Your task to perform on an android device: Is it going to rain today? Image 0: 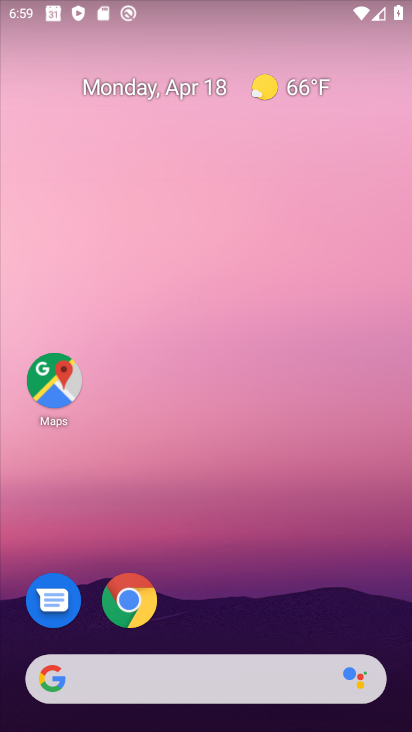
Step 0: click (130, 601)
Your task to perform on an android device: Is it going to rain today? Image 1: 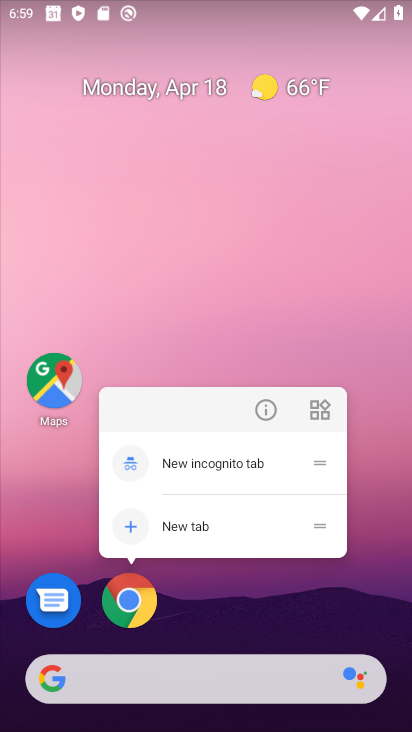
Step 1: click (135, 596)
Your task to perform on an android device: Is it going to rain today? Image 2: 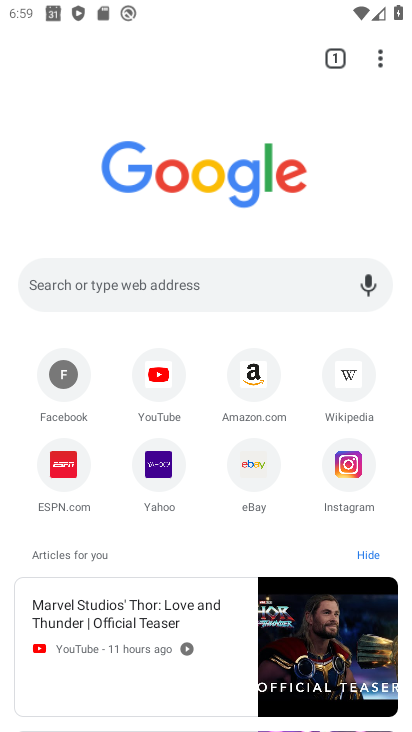
Step 2: click (145, 284)
Your task to perform on an android device: Is it going to rain today? Image 3: 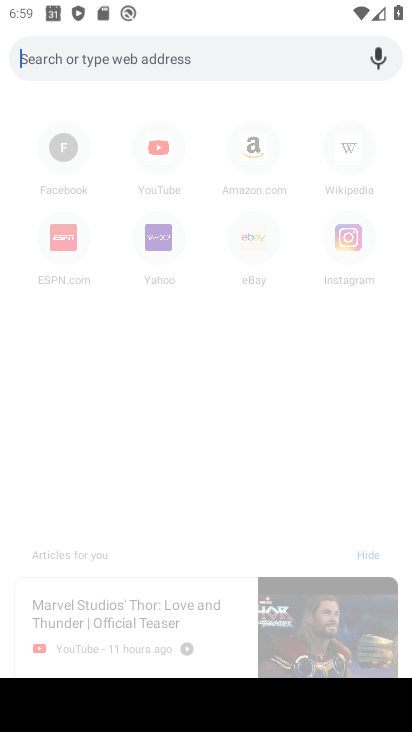
Step 3: type "Is it going to rain today?"
Your task to perform on an android device: Is it going to rain today? Image 4: 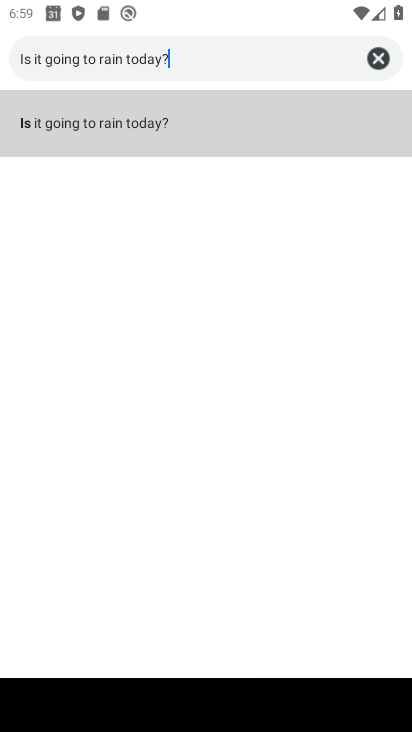
Step 4: type ""
Your task to perform on an android device: Is it going to rain today? Image 5: 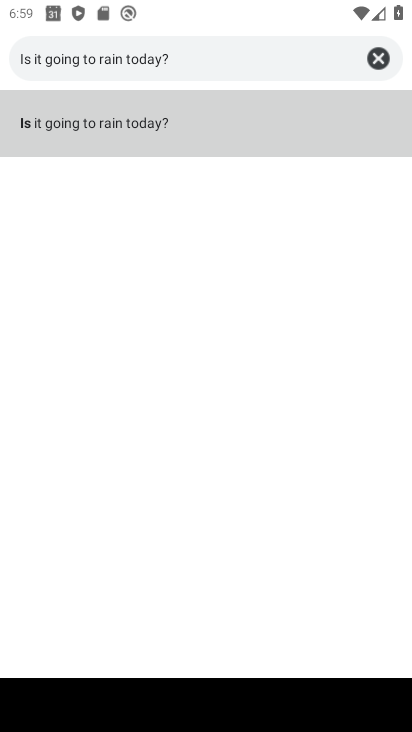
Step 5: click (130, 125)
Your task to perform on an android device: Is it going to rain today? Image 6: 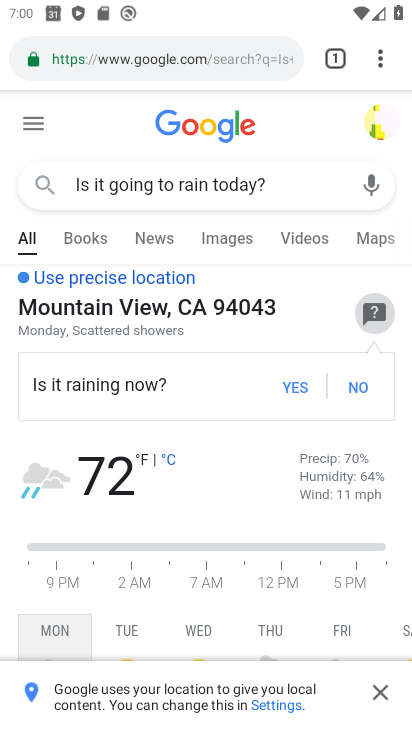
Step 6: task complete